Your task to perform on an android device: Open Chrome and go to the settings page Image 0: 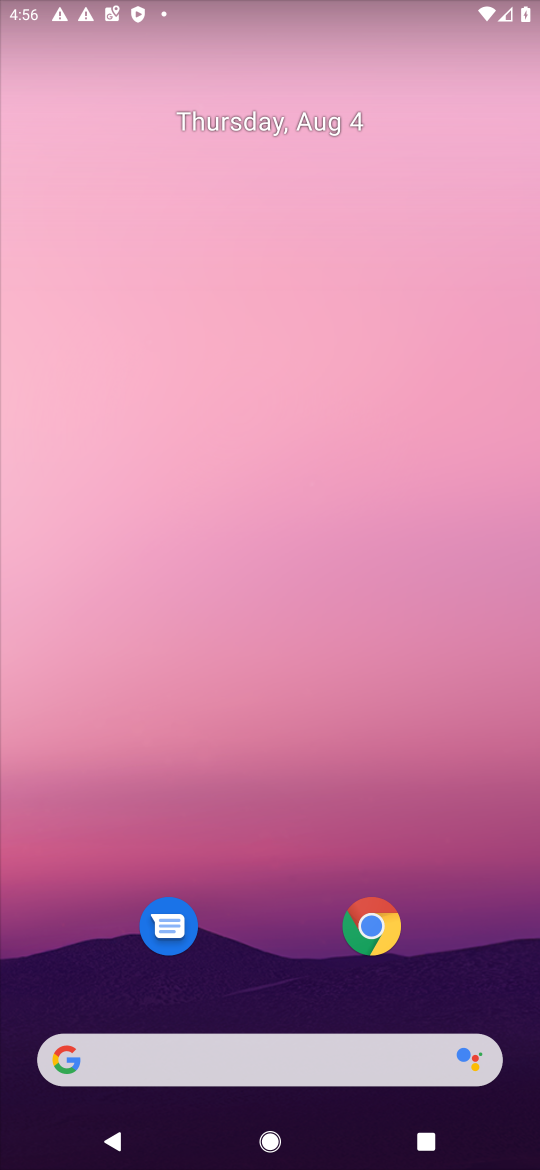
Step 0: press home button
Your task to perform on an android device: Open Chrome and go to the settings page Image 1: 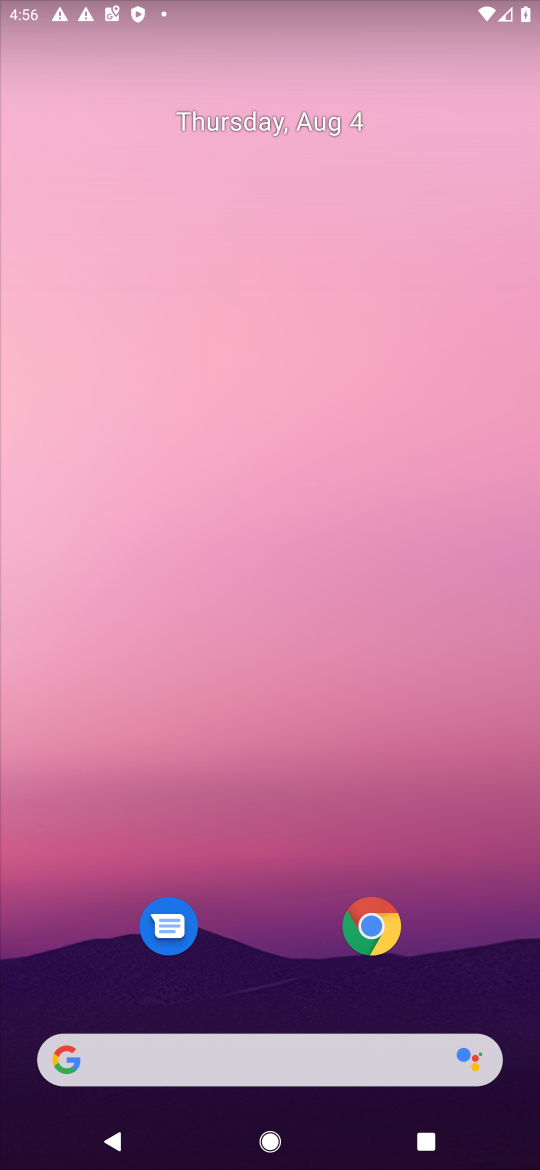
Step 1: drag from (290, 988) to (82, 251)
Your task to perform on an android device: Open Chrome and go to the settings page Image 2: 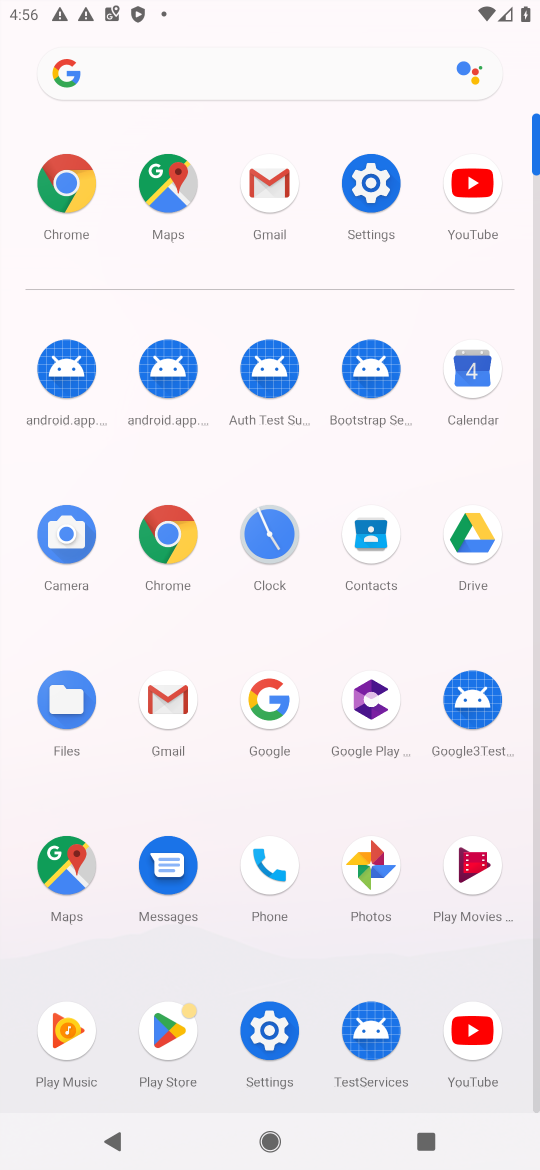
Step 2: click (58, 190)
Your task to perform on an android device: Open Chrome and go to the settings page Image 3: 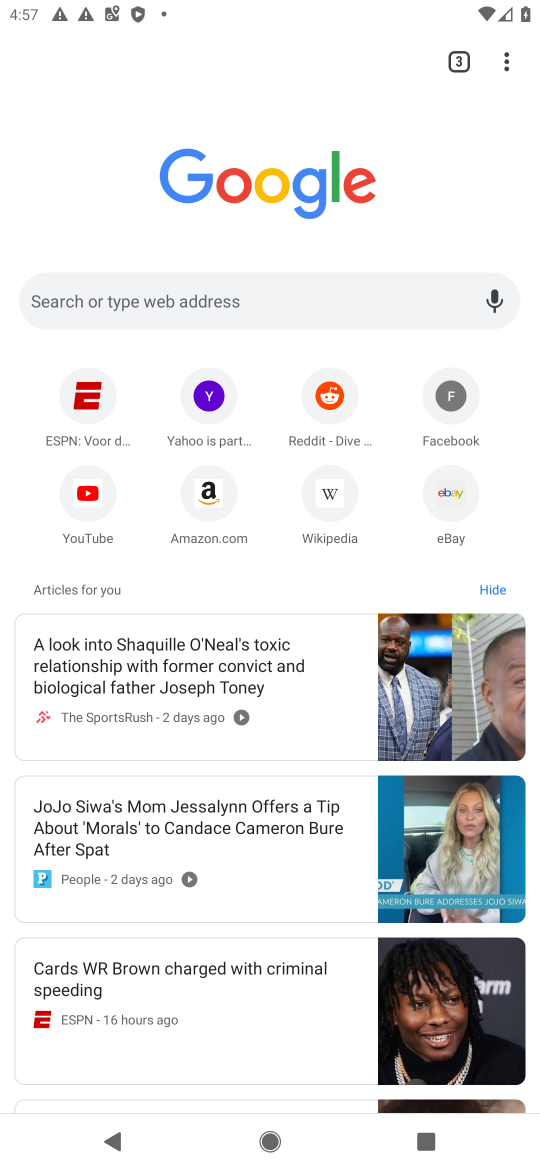
Step 3: task complete